Your task to perform on an android device: turn off smart reply in the gmail app Image 0: 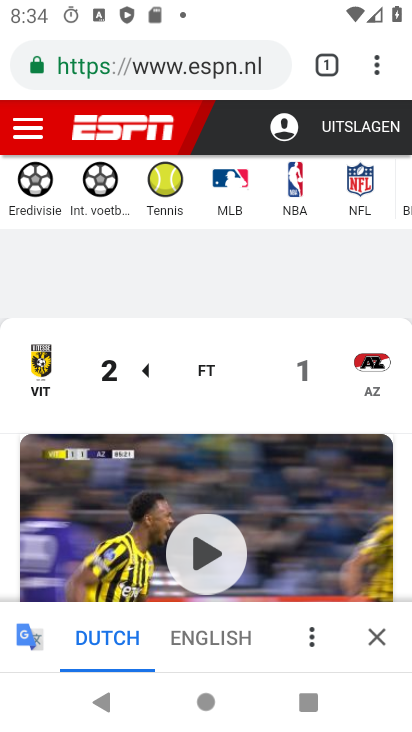
Step 0: press home button
Your task to perform on an android device: turn off smart reply in the gmail app Image 1: 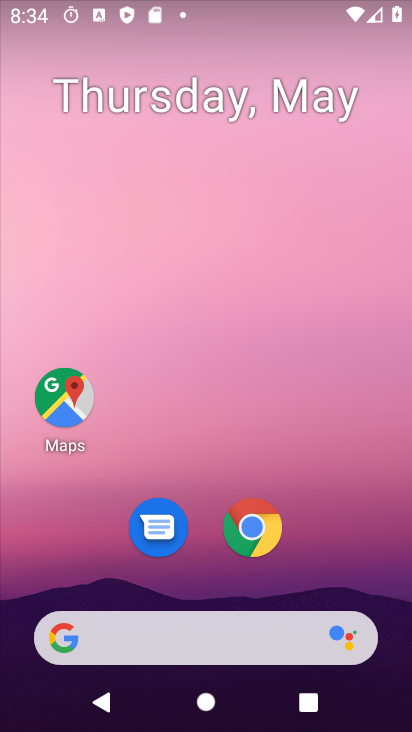
Step 1: drag from (11, 629) to (315, 145)
Your task to perform on an android device: turn off smart reply in the gmail app Image 2: 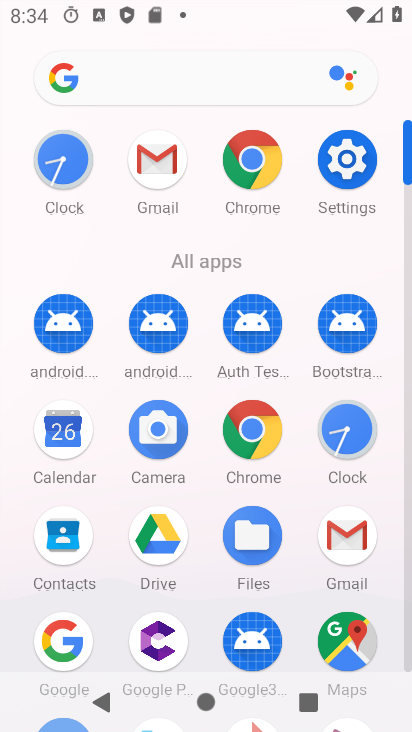
Step 2: click (137, 169)
Your task to perform on an android device: turn off smart reply in the gmail app Image 3: 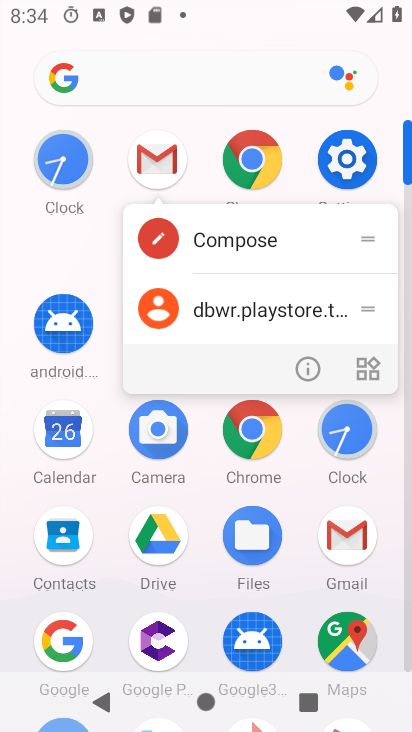
Step 3: click (131, 156)
Your task to perform on an android device: turn off smart reply in the gmail app Image 4: 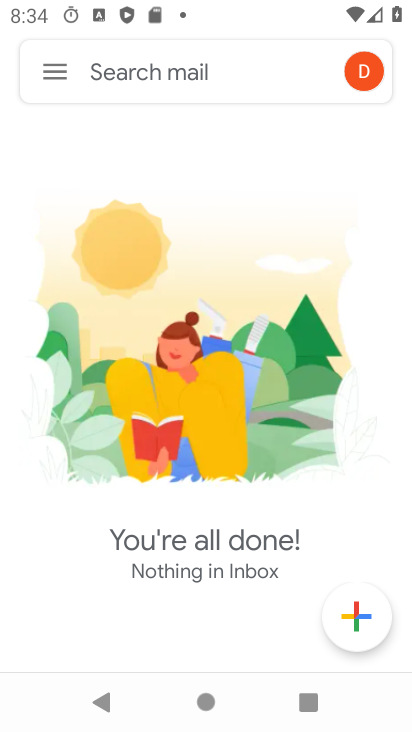
Step 4: click (67, 69)
Your task to perform on an android device: turn off smart reply in the gmail app Image 5: 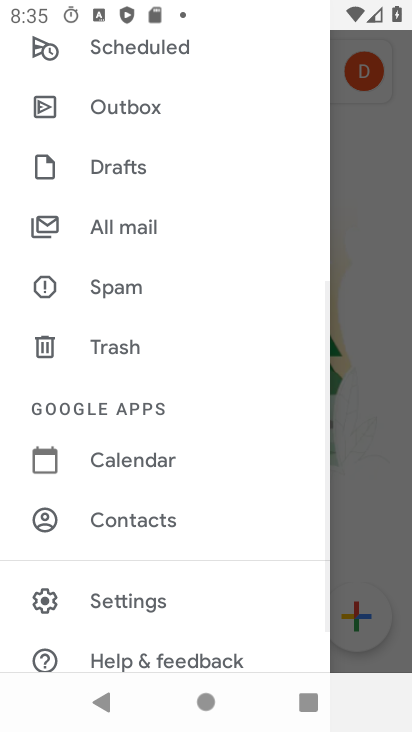
Step 5: click (77, 599)
Your task to perform on an android device: turn off smart reply in the gmail app Image 6: 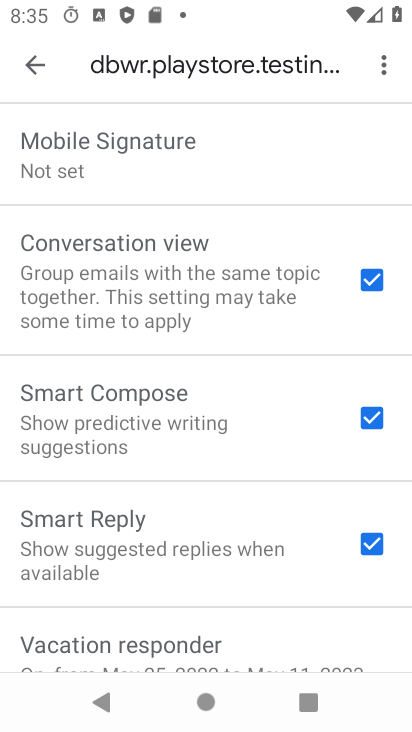
Step 6: click (378, 550)
Your task to perform on an android device: turn off smart reply in the gmail app Image 7: 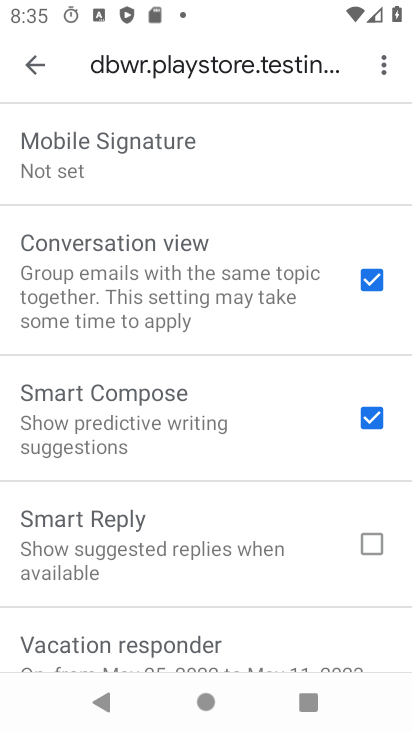
Step 7: task complete